Your task to perform on an android device: toggle notifications settings in the gmail app Image 0: 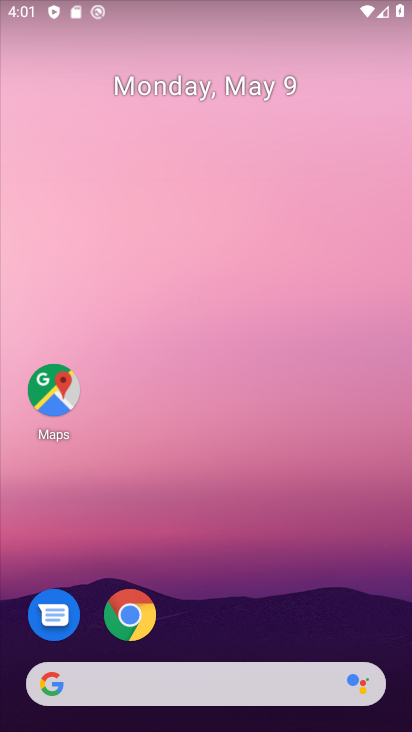
Step 0: drag from (225, 648) to (334, 230)
Your task to perform on an android device: toggle notifications settings in the gmail app Image 1: 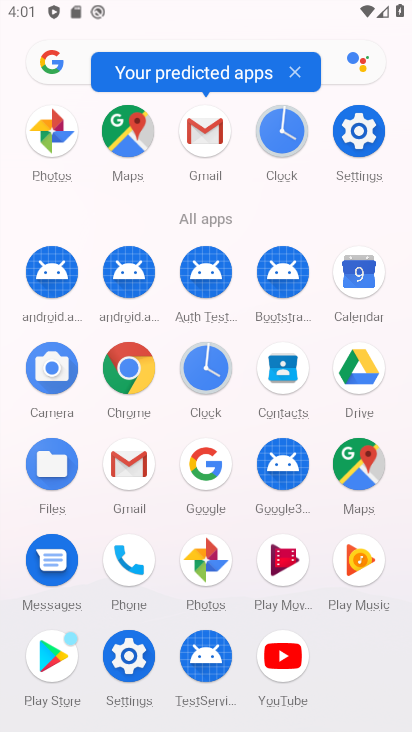
Step 1: click (124, 460)
Your task to perform on an android device: toggle notifications settings in the gmail app Image 2: 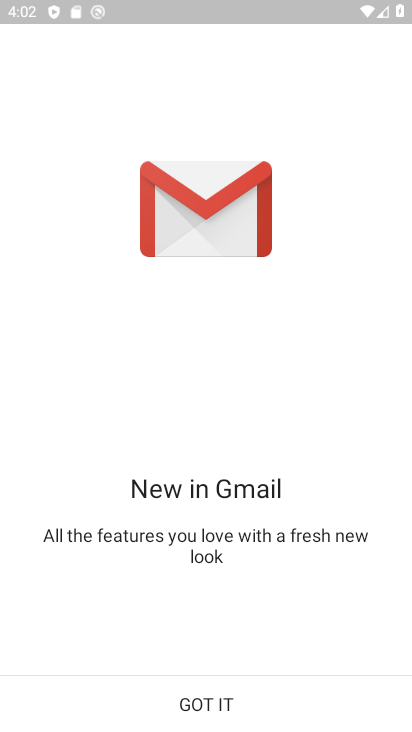
Step 2: click (223, 690)
Your task to perform on an android device: toggle notifications settings in the gmail app Image 3: 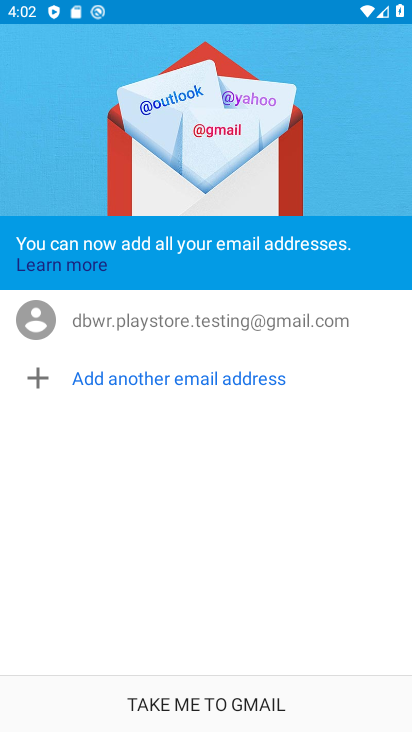
Step 3: click (223, 693)
Your task to perform on an android device: toggle notifications settings in the gmail app Image 4: 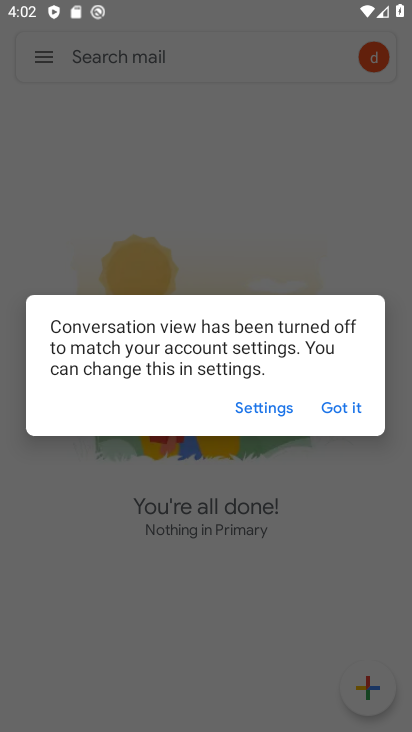
Step 4: click (332, 404)
Your task to perform on an android device: toggle notifications settings in the gmail app Image 5: 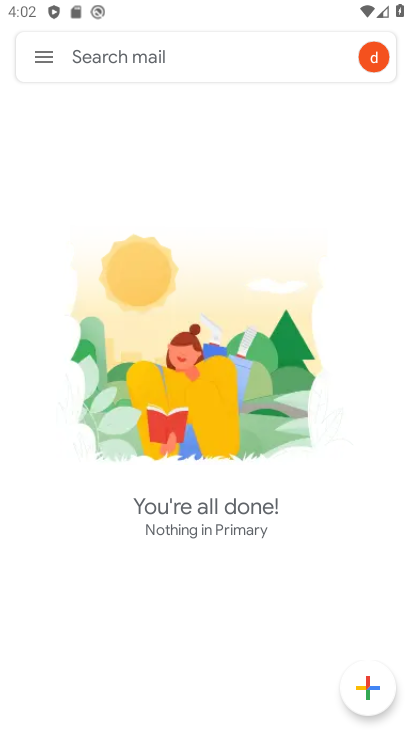
Step 5: click (47, 59)
Your task to perform on an android device: toggle notifications settings in the gmail app Image 6: 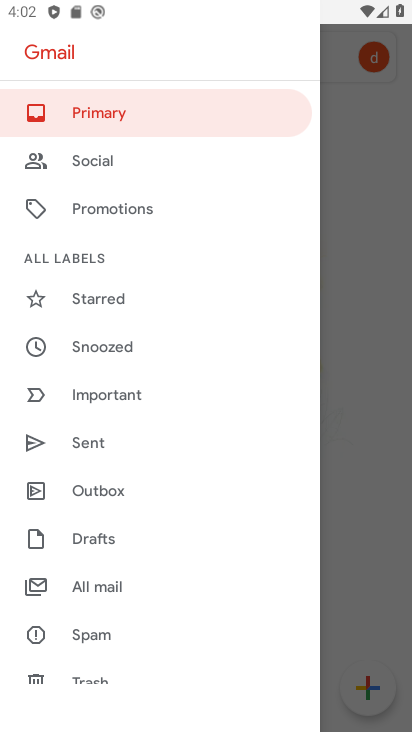
Step 6: drag from (155, 559) to (170, 466)
Your task to perform on an android device: toggle notifications settings in the gmail app Image 7: 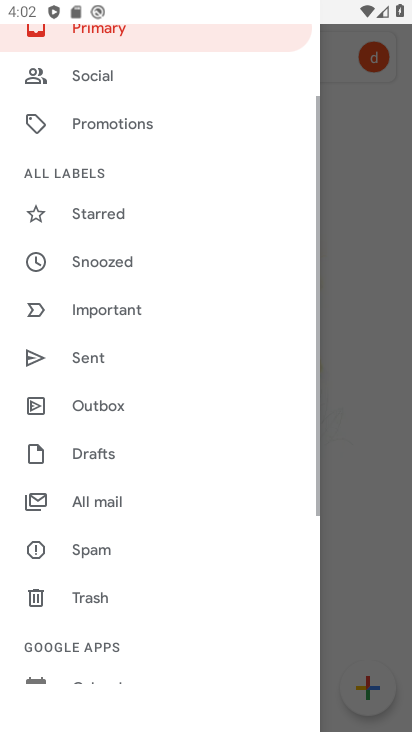
Step 7: drag from (176, 639) to (212, 503)
Your task to perform on an android device: toggle notifications settings in the gmail app Image 8: 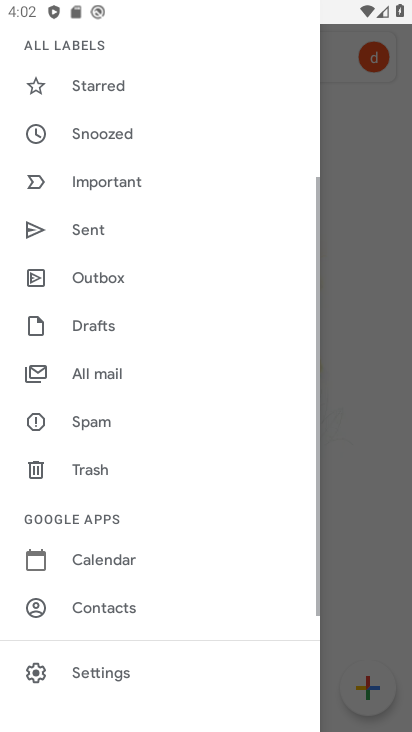
Step 8: drag from (181, 644) to (196, 499)
Your task to perform on an android device: toggle notifications settings in the gmail app Image 9: 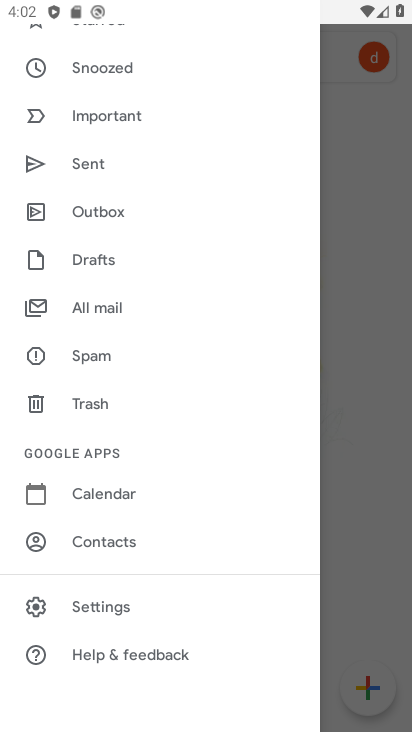
Step 9: click (158, 610)
Your task to perform on an android device: toggle notifications settings in the gmail app Image 10: 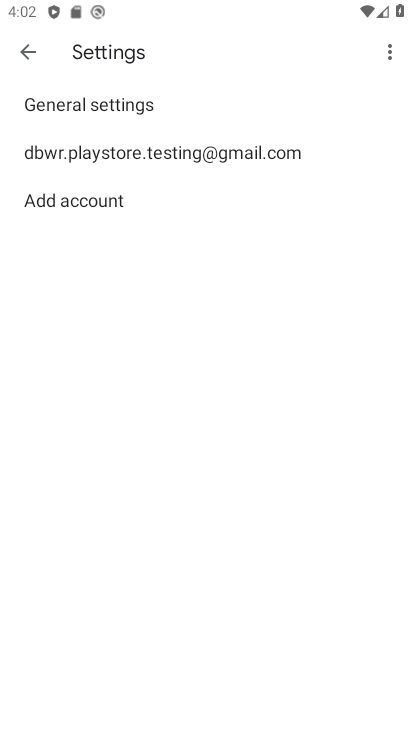
Step 10: click (292, 160)
Your task to perform on an android device: toggle notifications settings in the gmail app Image 11: 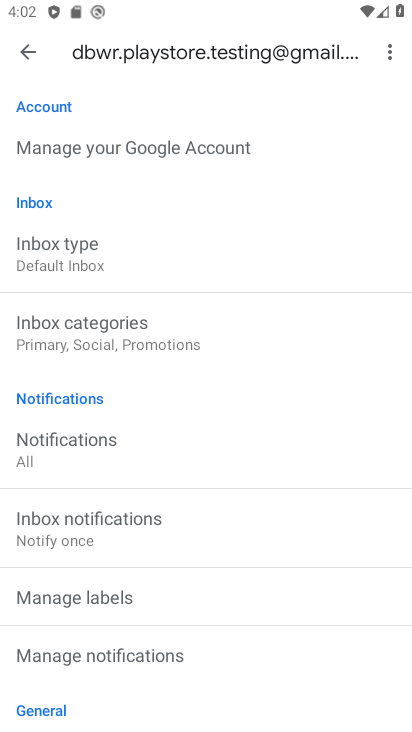
Step 11: click (223, 646)
Your task to perform on an android device: toggle notifications settings in the gmail app Image 12: 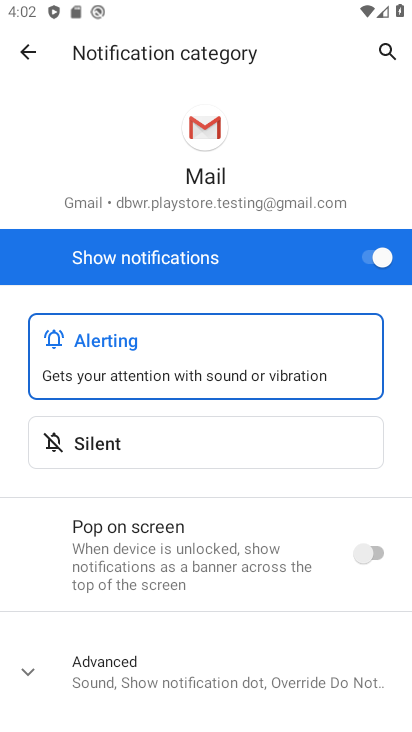
Step 12: click (370, 253)
Your task to perform on an android device: toggle notifications settings in the gmail app Image 13: 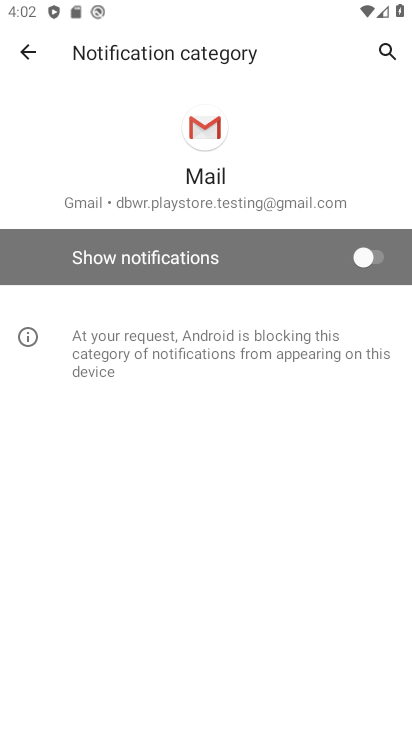
Step 13: task complete